Your task to perform on an android device: turn on wifi Image 0: 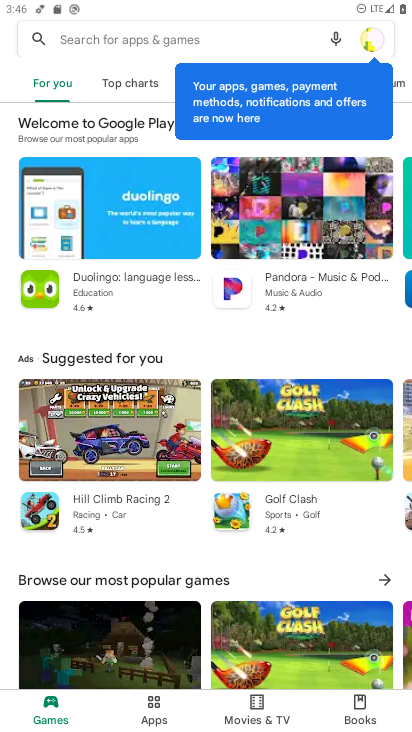
Step 0: press home button
Your task to perform on an android device: turn on wifi Image 1: 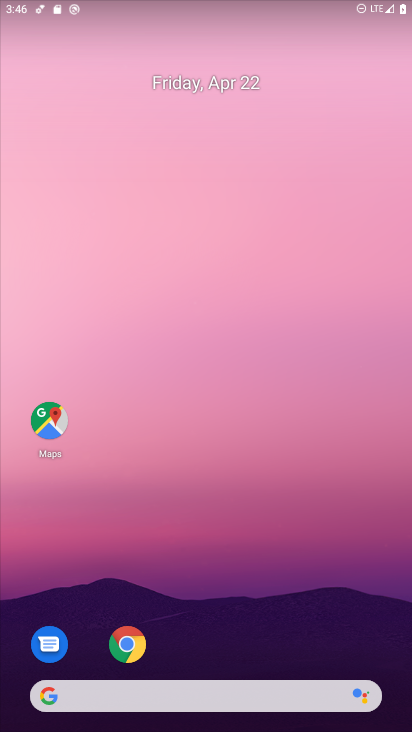
Step 1: drag from (236, 644) to (302, 64)
Your task to perform on an android device: turn on wifi Image 2: 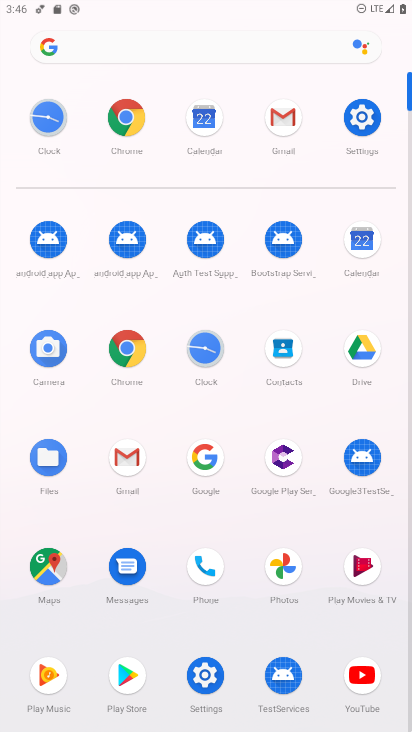
Step 2: click (373, 114)
Your task to perform on an android device: turn on wifi Image 3: 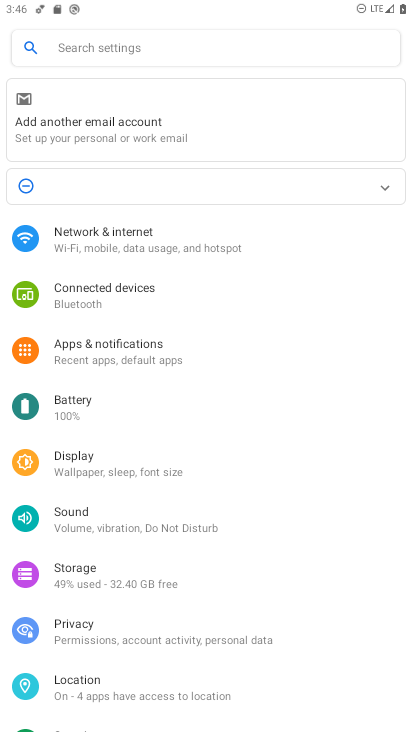
Step 3: click (138, 252)
Your task to perform on an android device: turn on wifi Image 4: 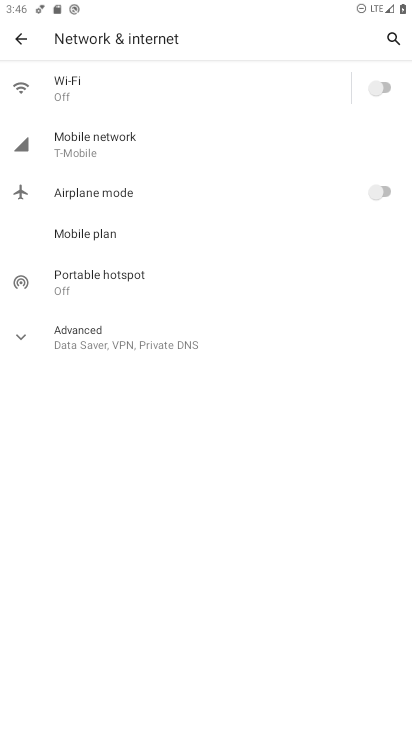
Step 4: click (386, 83)
Your task to perform on an android device: turn on wifi Image 5: 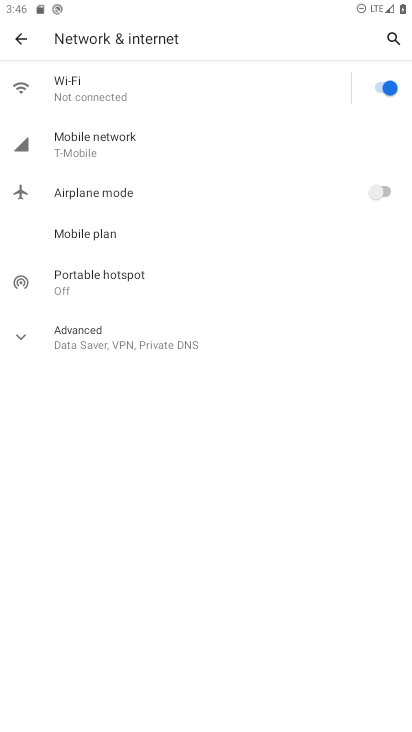
Step 5: task complete